Your task to perform on an android device: change the clock display to analog Image 0: 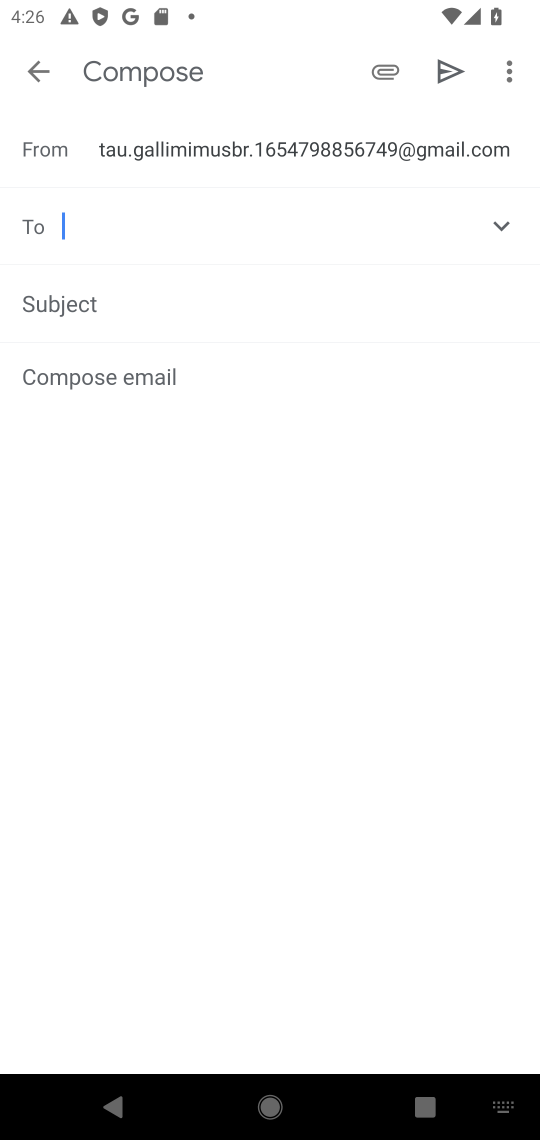
Step 0: press home button
Your task to perform on an android device: change the clock display to analog Image 1: 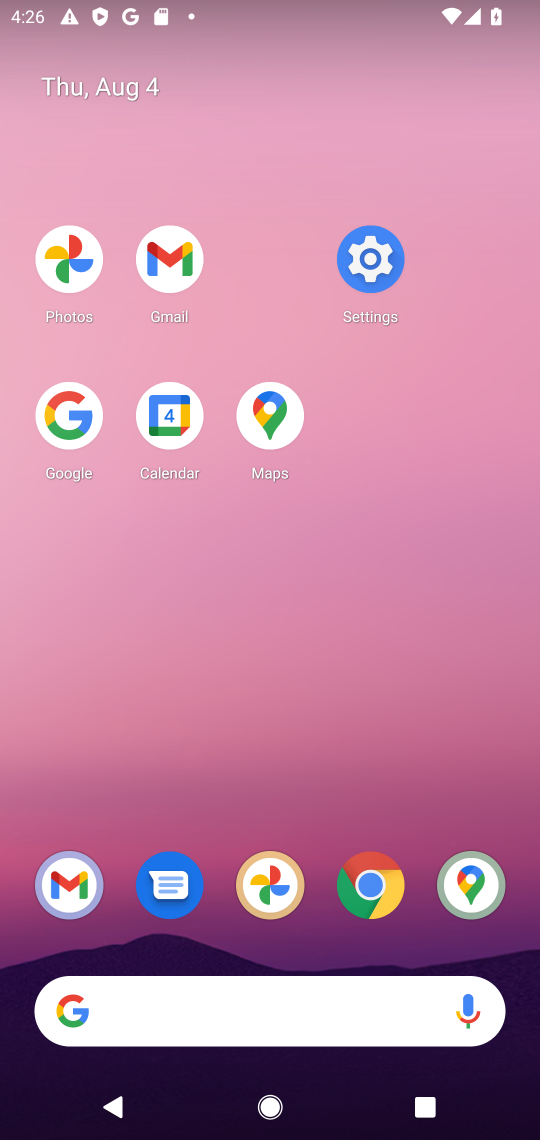
Step 1: drag from (282, 696) to (65, 69)
Your task to perform on an android device: change the clock display to analog Image 2: 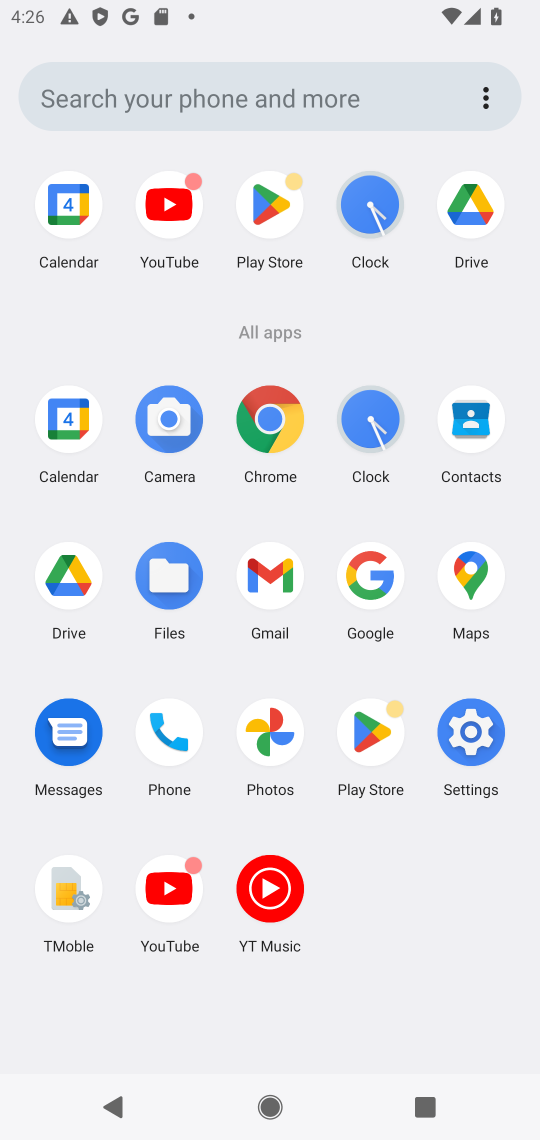
Step 2: drag from (377, 422) to (271, 278)
Your task to perform on an android device: change the clock display to analog Image 3: 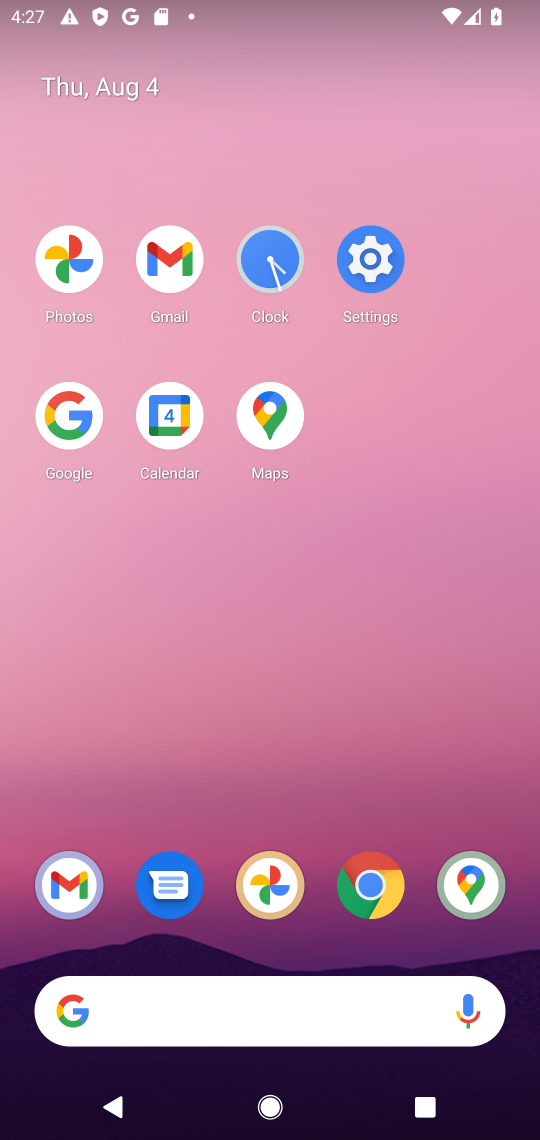
Step 3: click (270, 263)
Your task to perform on an android device: change the clock display to analog Image 4: 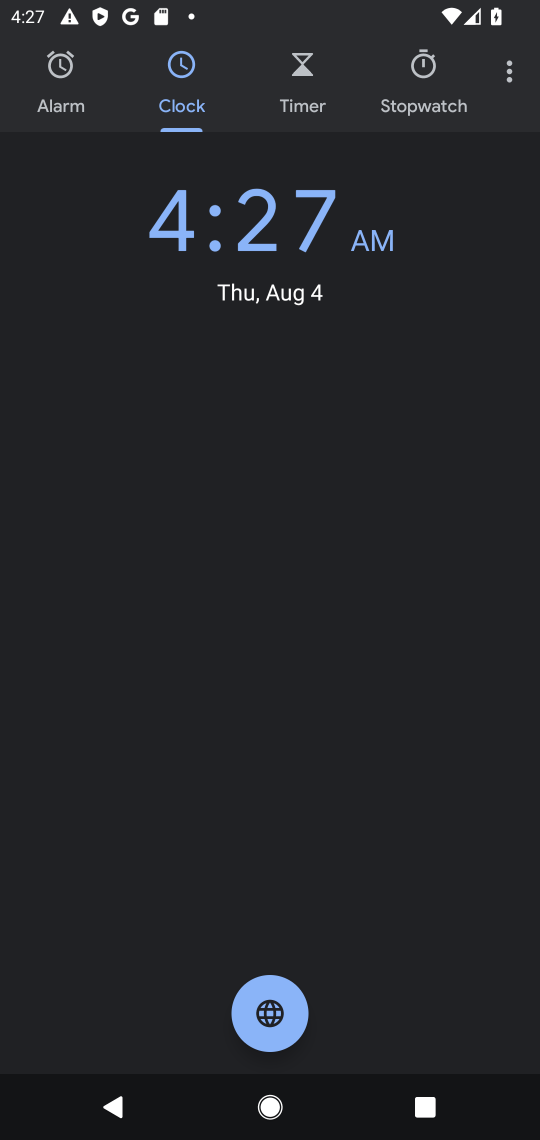
Step 4: click (517, 64)
Your task to perform on an android device: change the clock display to analog Image 5: 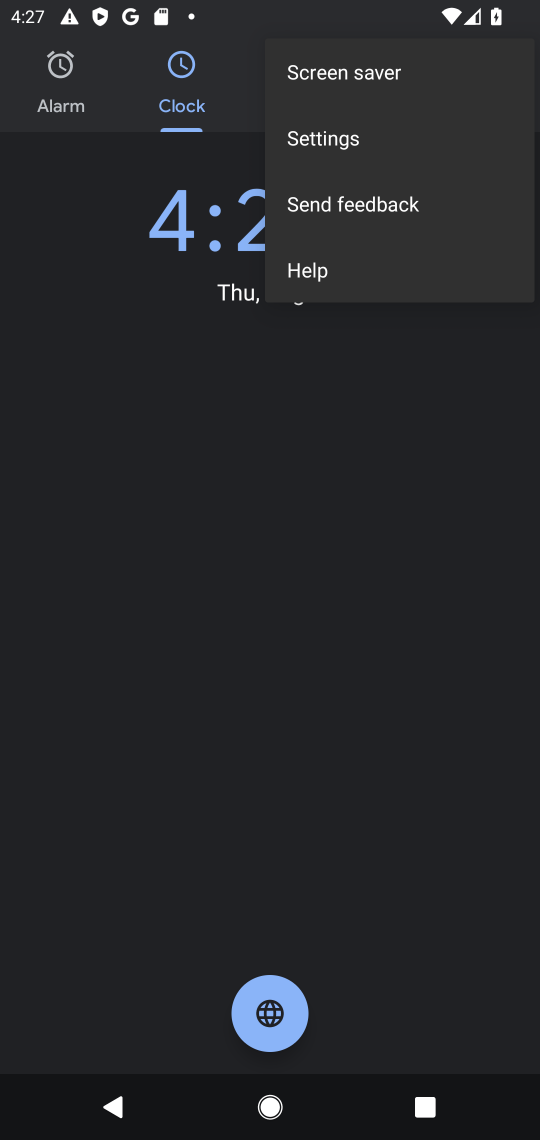
Step 5: click (439, 138)
Your task to perform on an android device: change the clock display to analog Image 6: 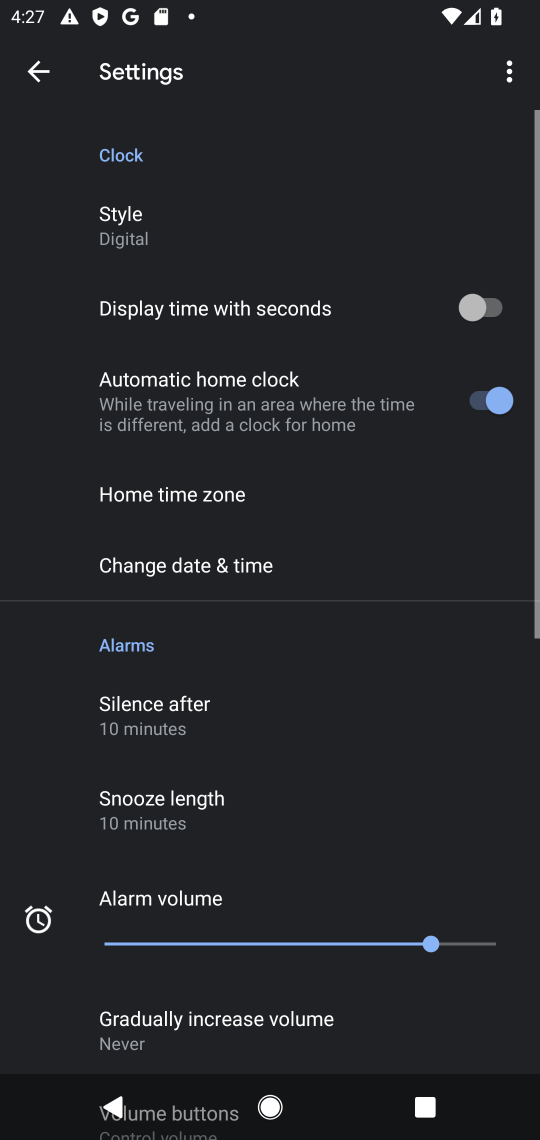
Step 6: click (188, 199)
Your task to perform on an android device: change the clock display to analog Image 7: 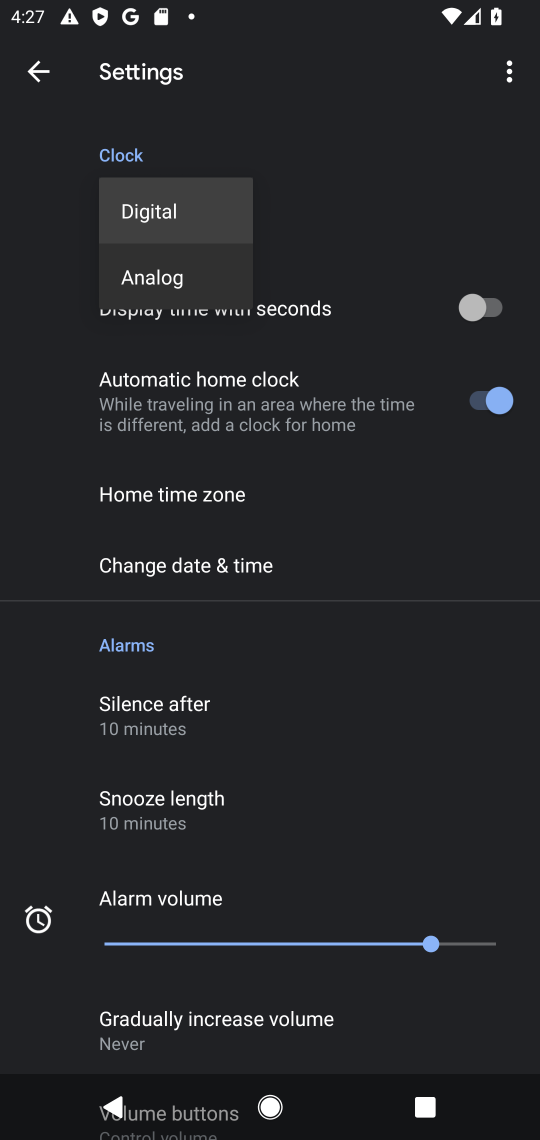
Step 7: click (214, 271)
Your task to perform on an android device: change the clock display to analog Image 8: 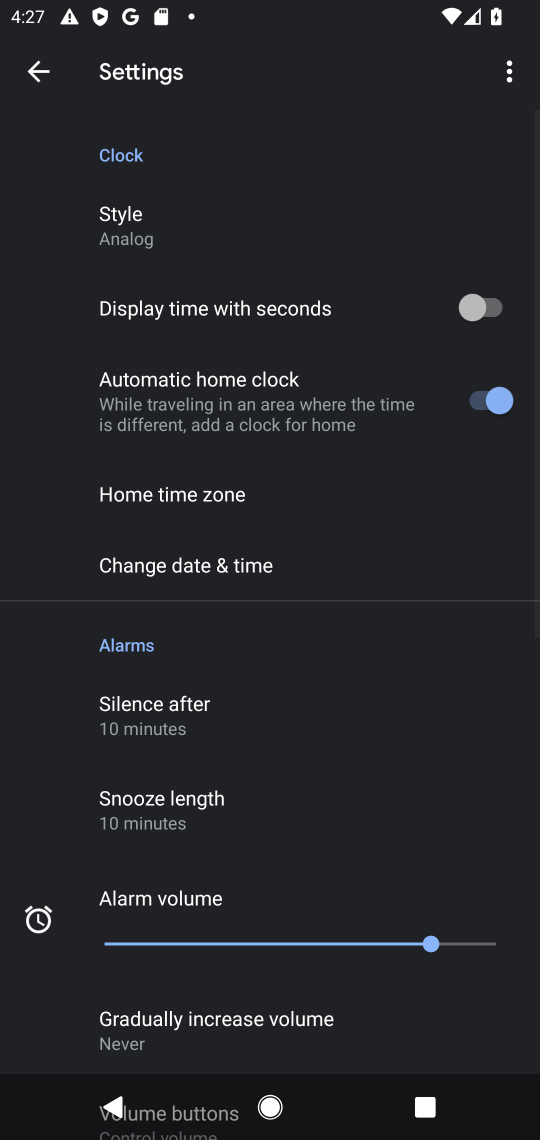
Step 8: task complete